Your task to perform on an android device: Open calendar and show me the fourth week of next month Image 0: 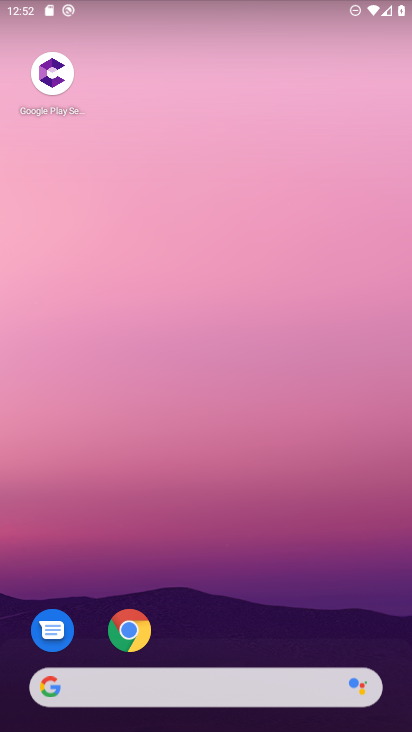
Step 0: drag from (290, 576) to (263, 148)
Your task to perform on an android device: Open calendar and show me the fourth week of next month Image 1: 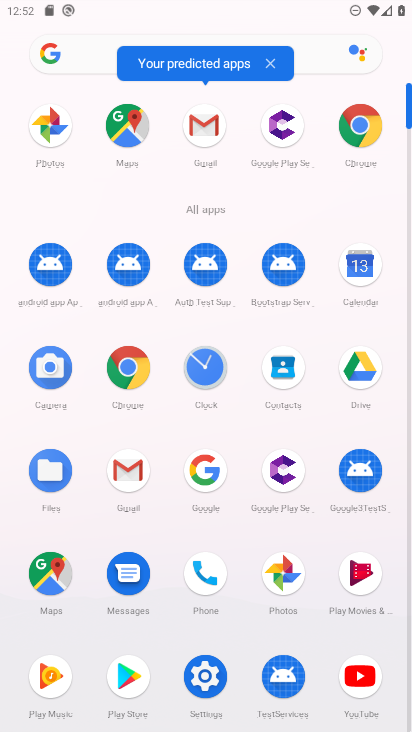
Step 1: click (364, 270)
Your task to perform on an android device: Open calendar and show me the fourth week of next month Image 2: 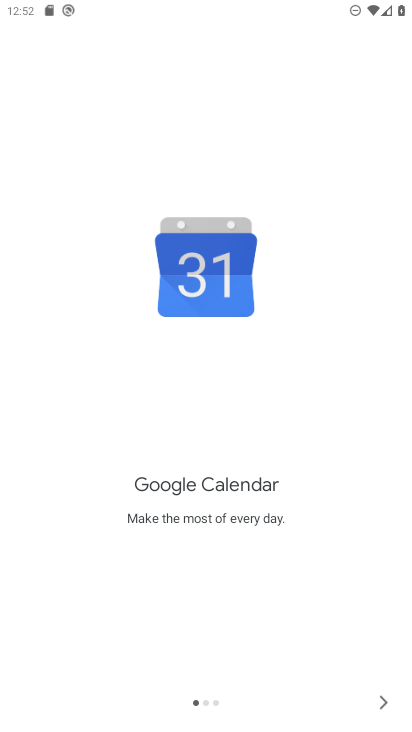
Step 2: click (380, 692)
Your task to perform on an android device: Open calendar and show me the fourth week of next month Image 3: 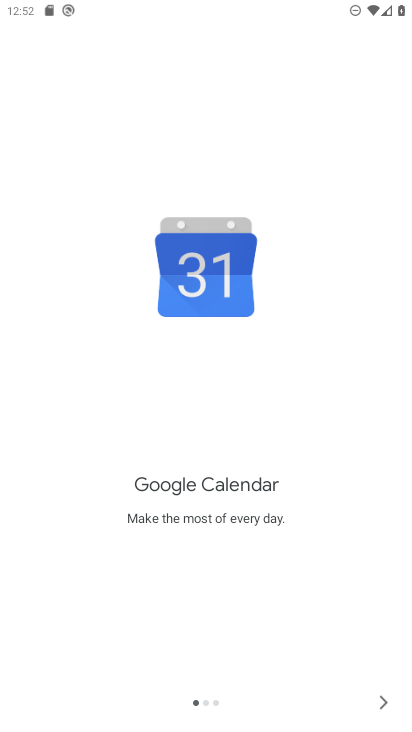
Step 3: click (380, 692)
Your task to perform on an android device: Open calendar and show me the fourth week of next month Image 4: 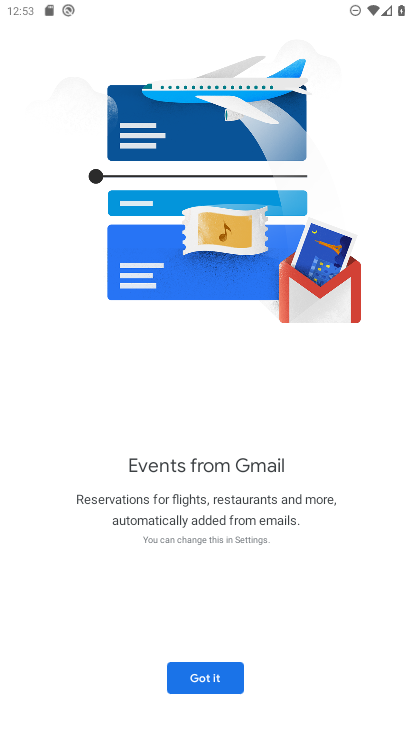
Step 4: click (183, 678)
Your task to perform on an android device: Open calendar and show me the fourth week of next month Image 5: 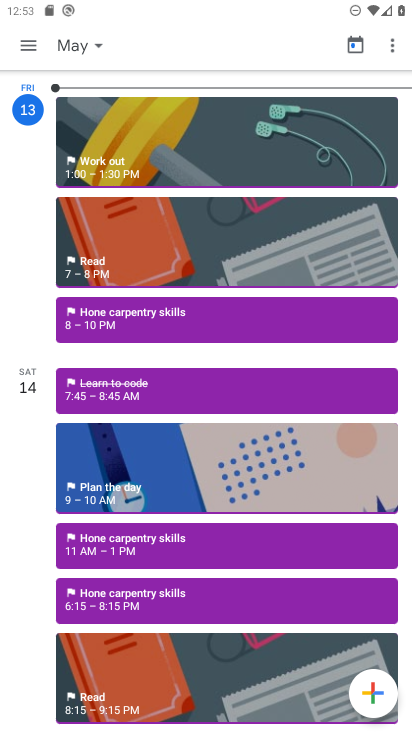
Step 5: click (74, 38)
Your task to perform on an android device: Open calendar and show me the fourth week of next month Image 6: 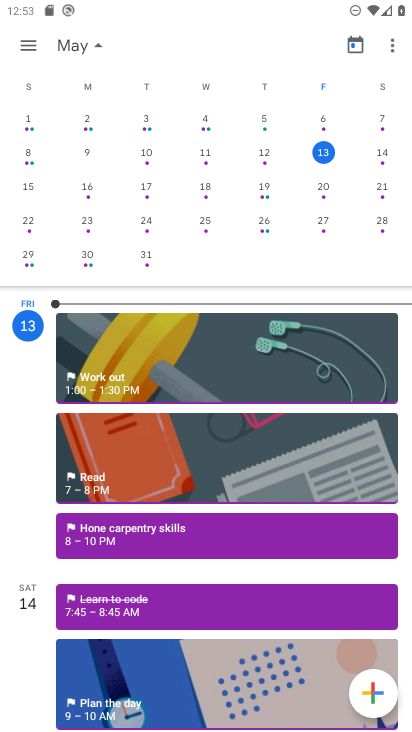
Step 6: drag from (361, 237) to (16, 199)
Your task to perform on an android device: Open calendar and show me the fourth week of next month Image 7: 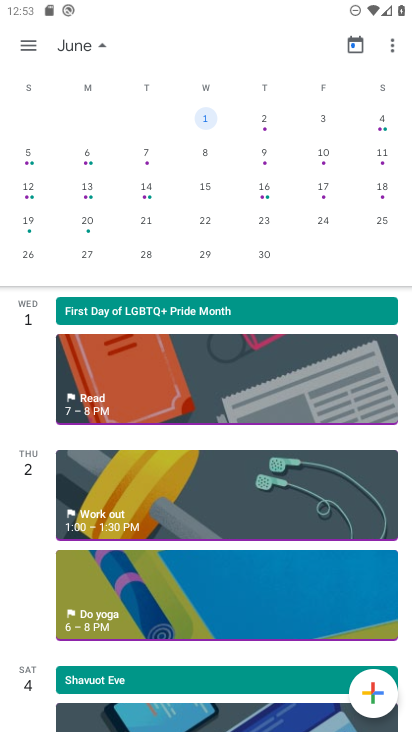
Step 7: click (29, 250)
Your task to perform on an android device: Open calendar and show me the fourth week of next month Image 8: 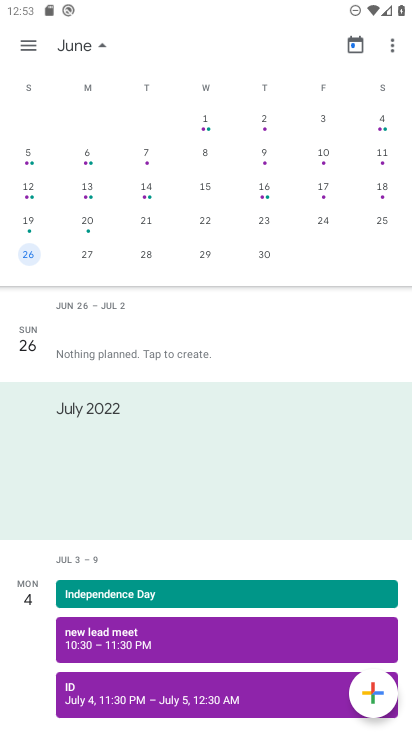
Step 8: task complete